Your task to perform on an android device: Open privacy settings Image 0: 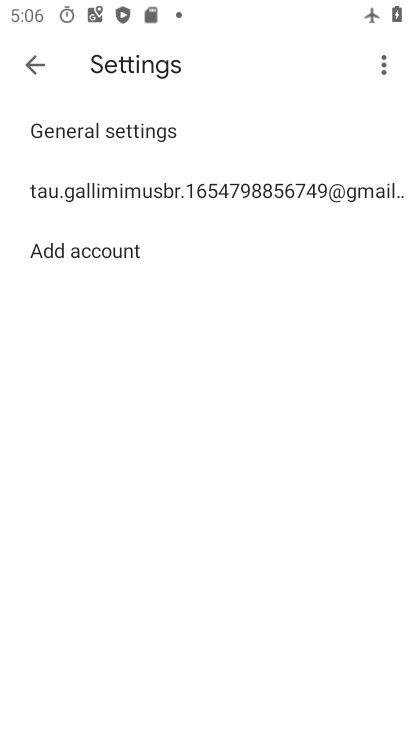
Step 0: press home button
Your task to perform on an android device: Open privacy settings Image 1: 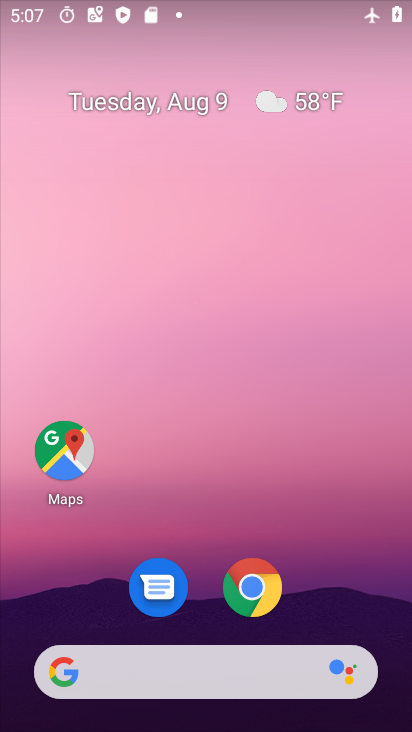
Step 1: drag from (214, 672) to (183, 323)
Your task to perform on an android device: Open privacy settings Image 2: 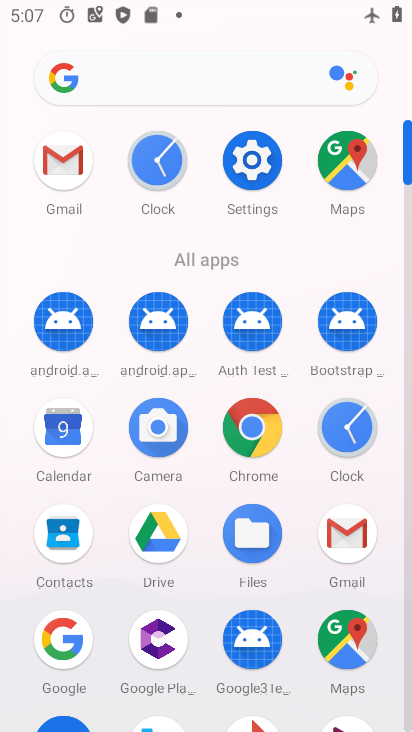
Step 2: click (243, 194)
Your task to perform on an android device: Open privacy settings Image 3: 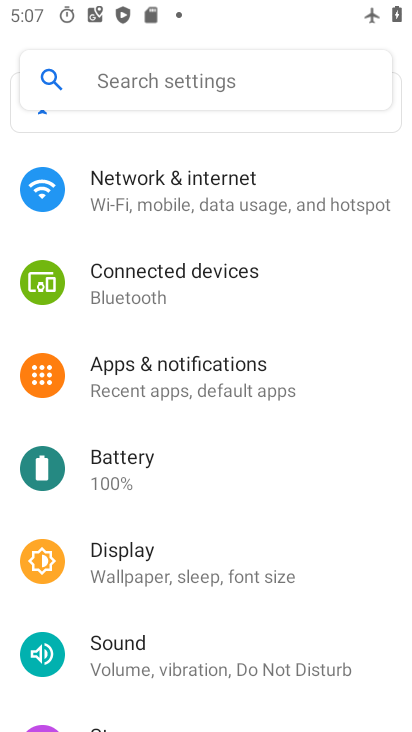
Step 3: drag from (156, 554) to (134, 151)
Your task to perform on an android device: Open privacy settings Image 4: 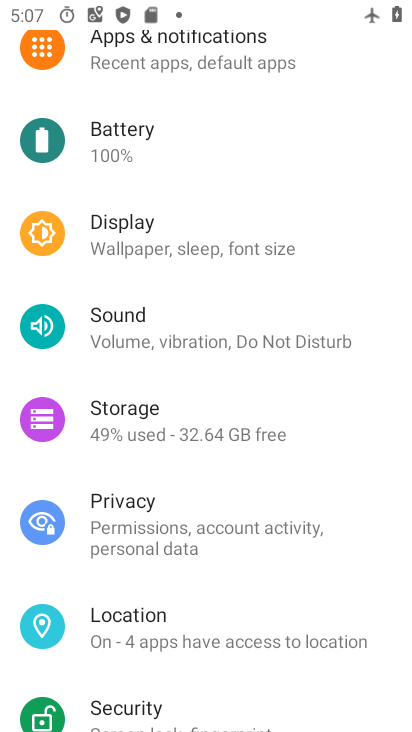
Step 4: click (137, 547)
Your task to perform on an android device: Open privacy settings Image 5: 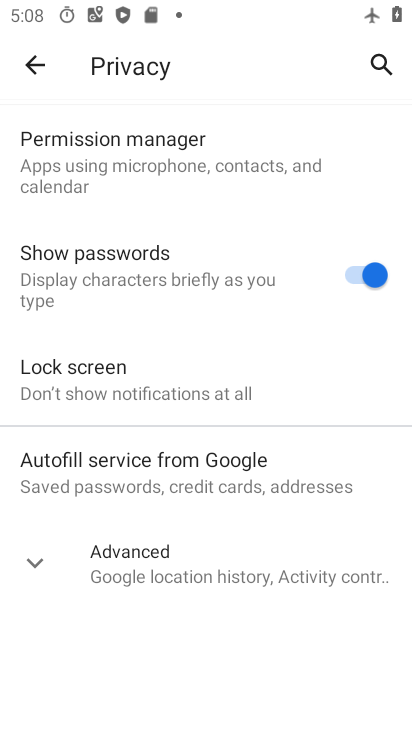
Step 5: task complete